Your task to perform on an android device: check out phone information Image 0: 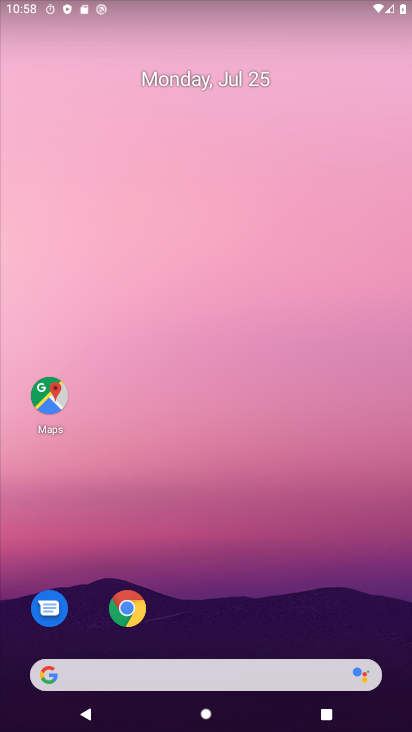
Step 0: drag from (224, 535) to (151, 0)
Your task to perform on an android device: check out phone information Image 1: 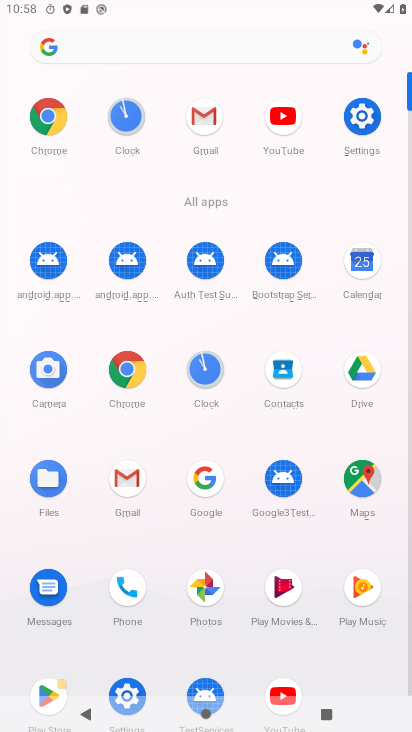
Step 1: click (365, 123)
Your task to perform on an android device: check out phone information Image 2: 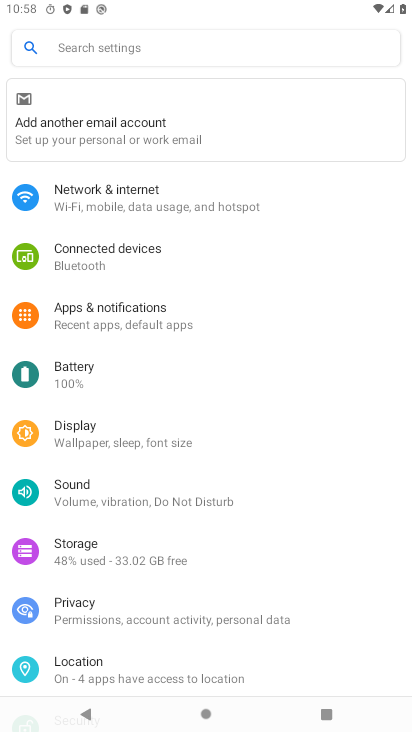
Step 2: drag from (111, 614) to (204, 4)
Your task to perform on an android device: check out phone information Image 3: 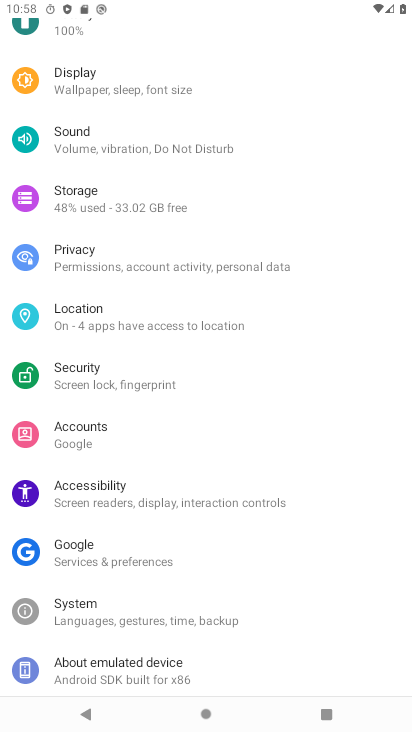
Step 3: click (105, 668)
Your task to perform on an android device: check out phone information Image 4: 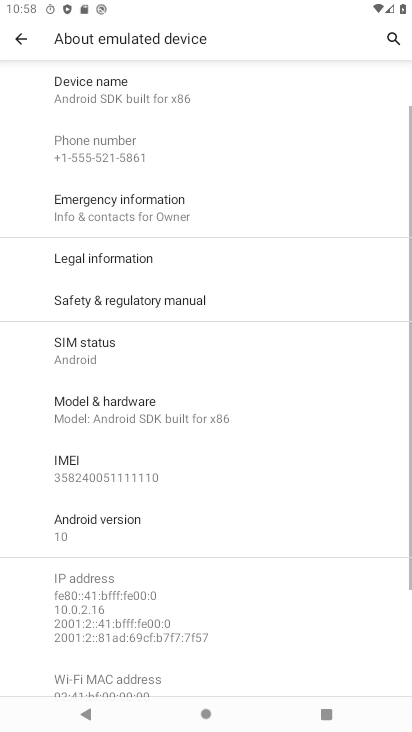
Step 4: task complete